Your task to perform on an android device: set an alarm Image 0: 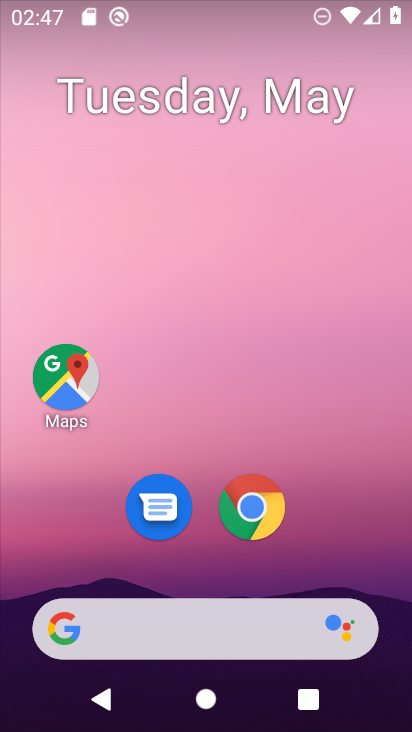
Step 0: drag from (177, 559) to (213, 173)
Your task to perform on an android device: set an alarm Image 1: 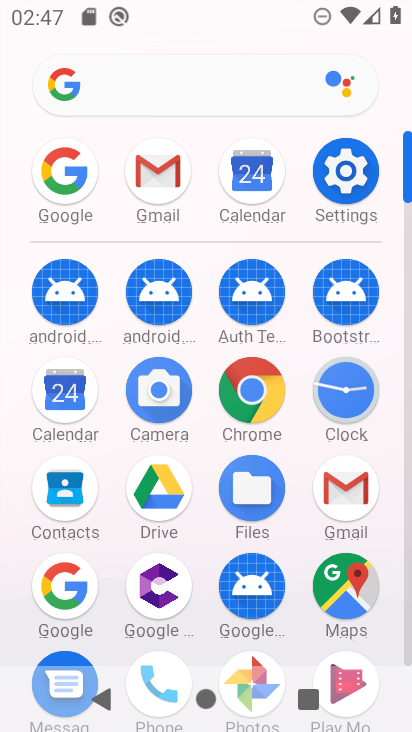
Step 1: click (346, 404)
Your task to perform on an android device: set an alarm Image 2: 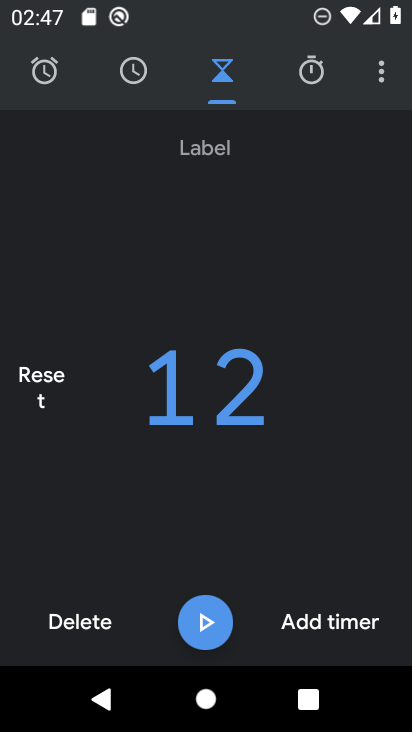
Step 2: click (37, 83)
Your task to perform on an android device: set an alarm Image 3: 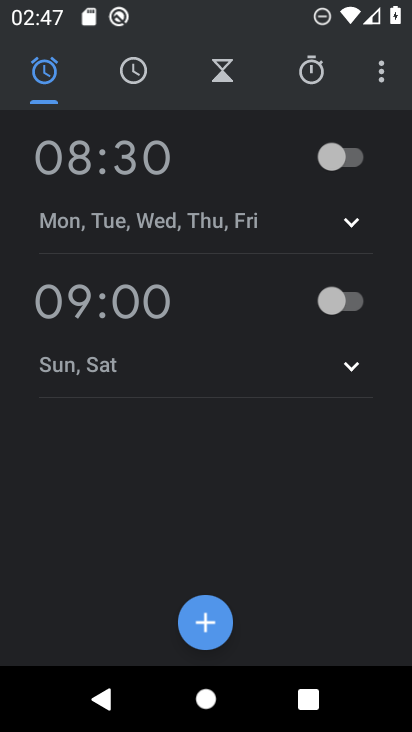
Step 3: click (351, 161)
Your task to perform on an android device: set an alarm Image 4: 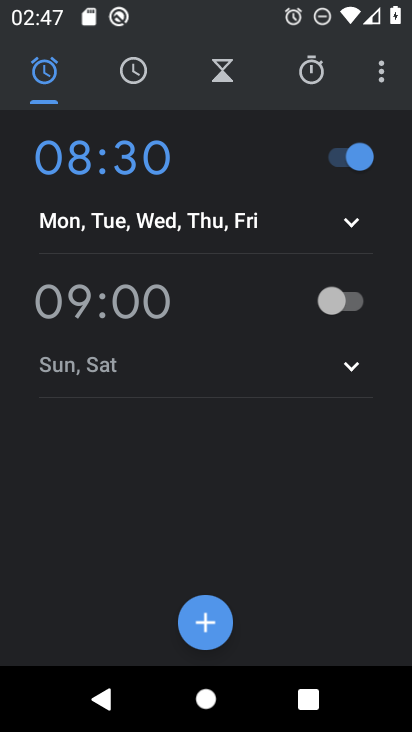
Step 4: task complete